Your task to perform on an android device: Show me my notifications Image 0: 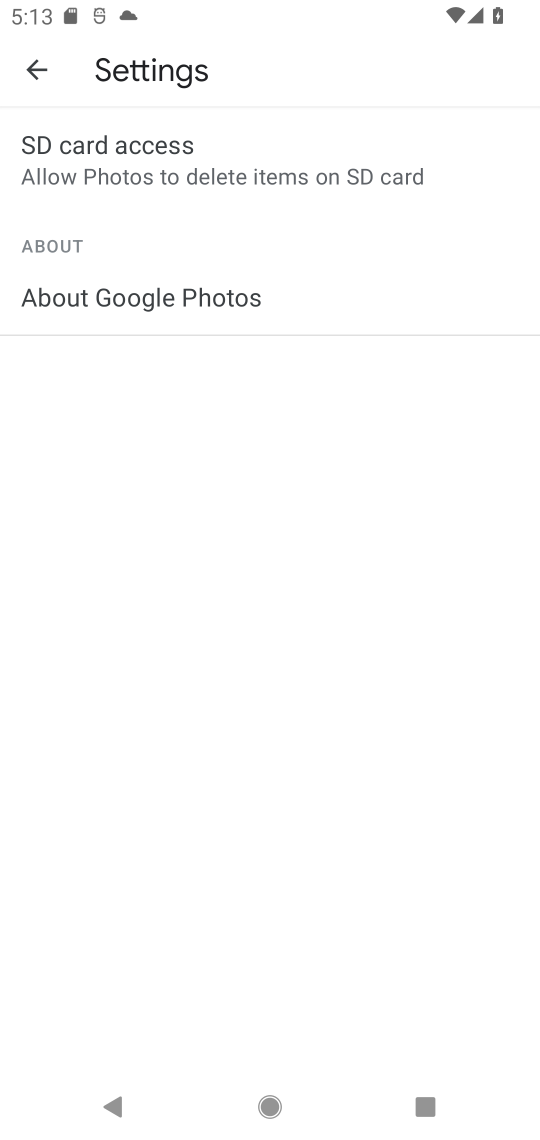
Step 0: press home button
Your task to perform on an android device: Show me my notifications Image 1: 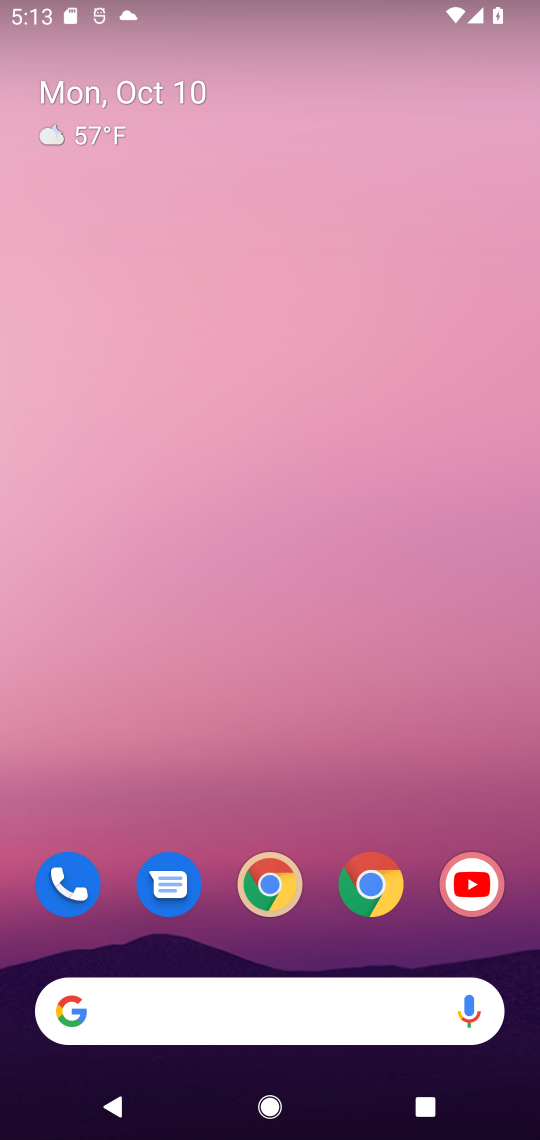
Step 1: drag from (320, 939) to (385, 3)
Your task to perform on an android device: Show me my notifications Image 2: 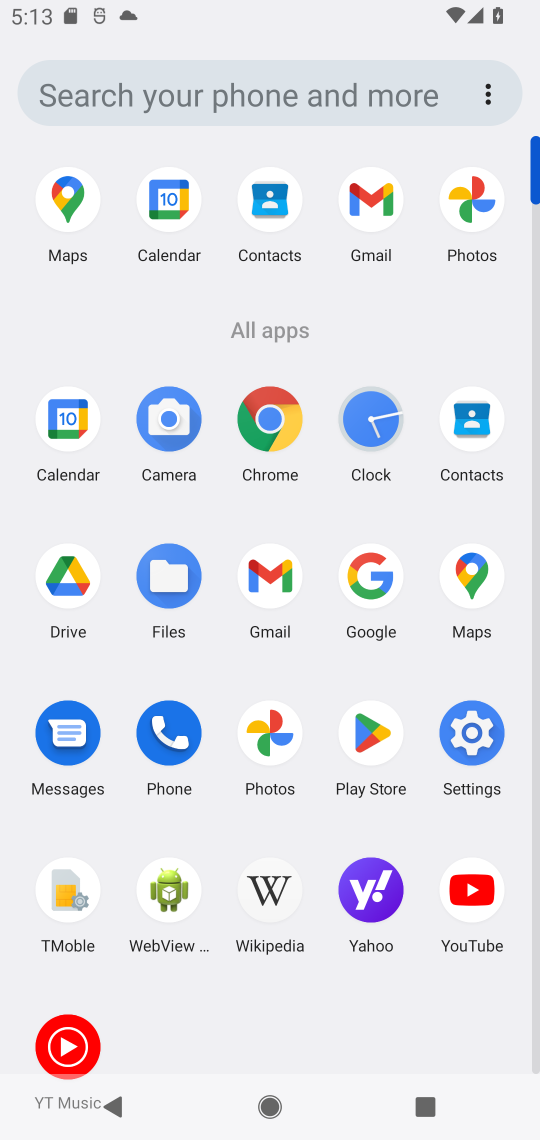
Step 2: click (458, 730)
Your task to perform on an android device: Show me my notifications Image 3: 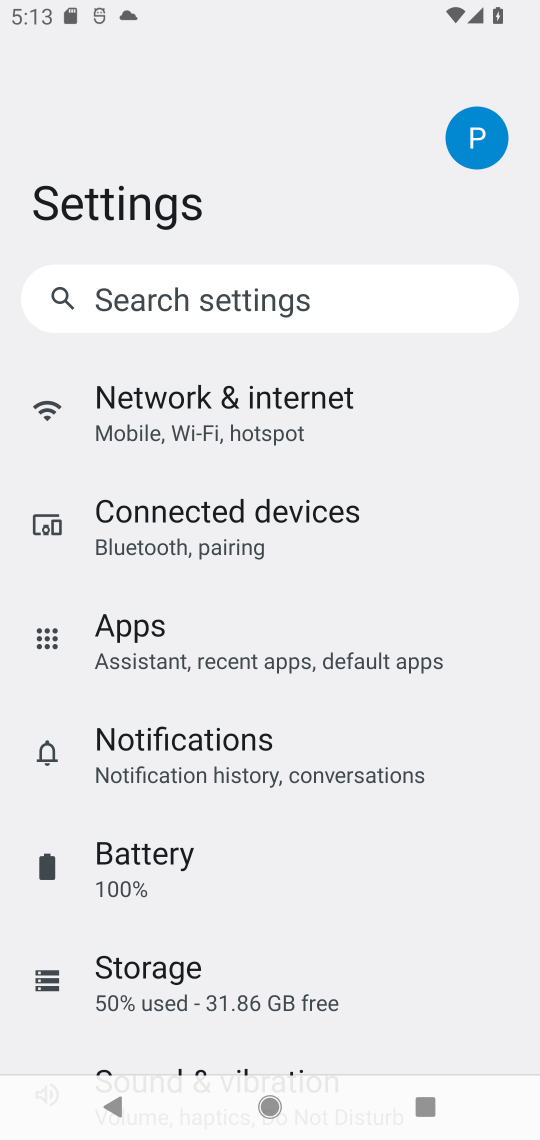
Step 3: click (207, 743)
Your task to perform on an android device: Show me my notifications Image 4: 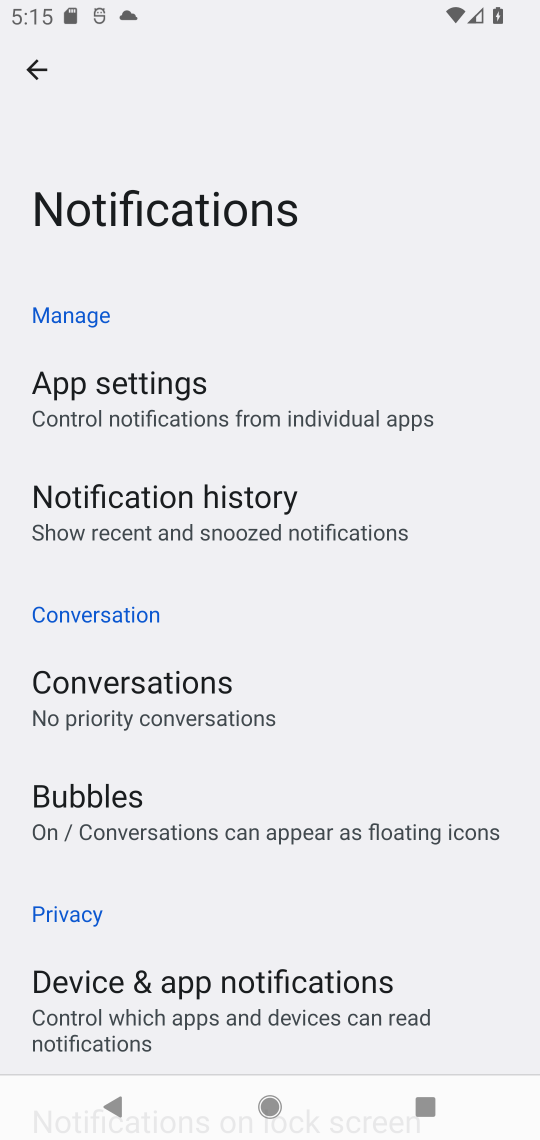
Step 4: task complete